Your task to perform on an android device: Clear the cart on walmart. Add "dell alienware" to the cart on walmart Image 0: 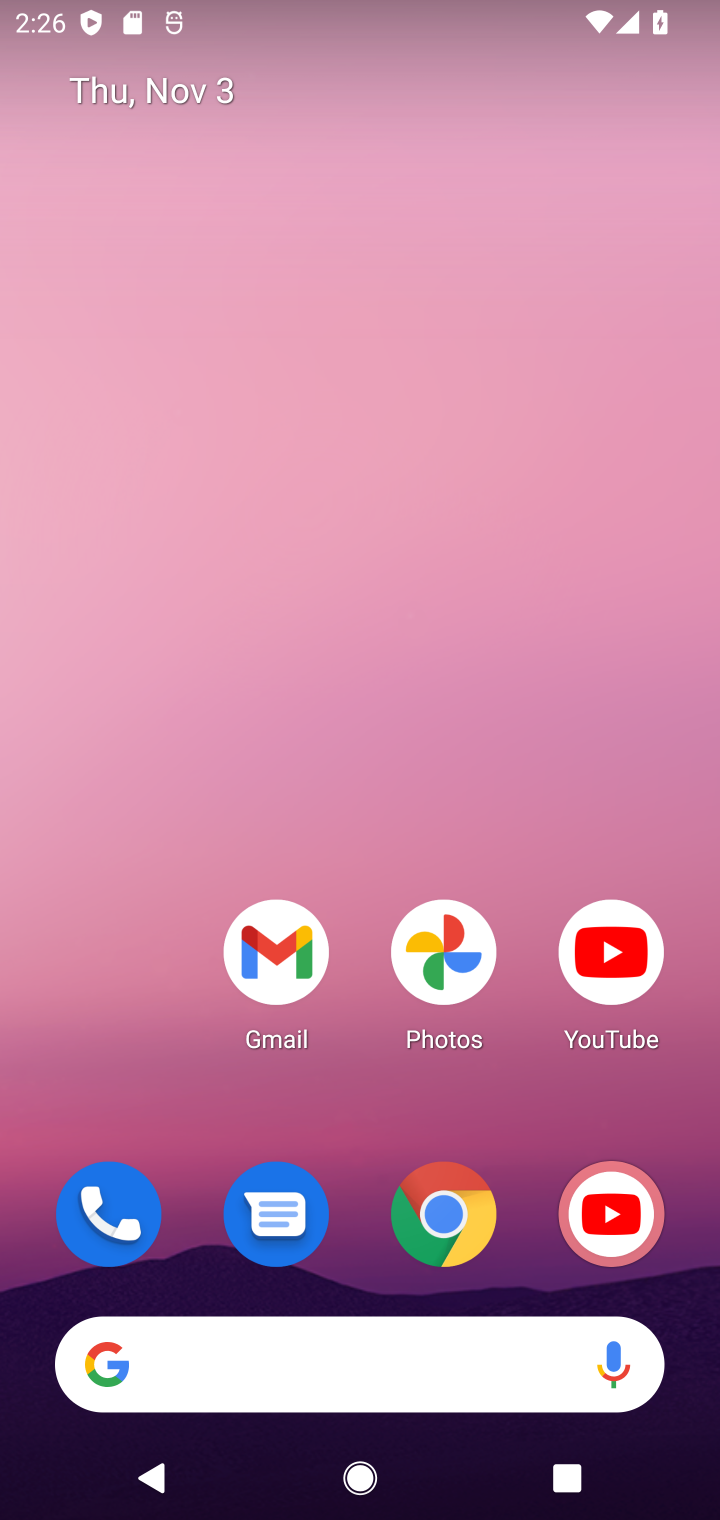
Step 0: click (411, 1339)
Your task to perform on an android device: Clear the cart on walmart. Add "dell alienware" to the cart on walmart Image 1: 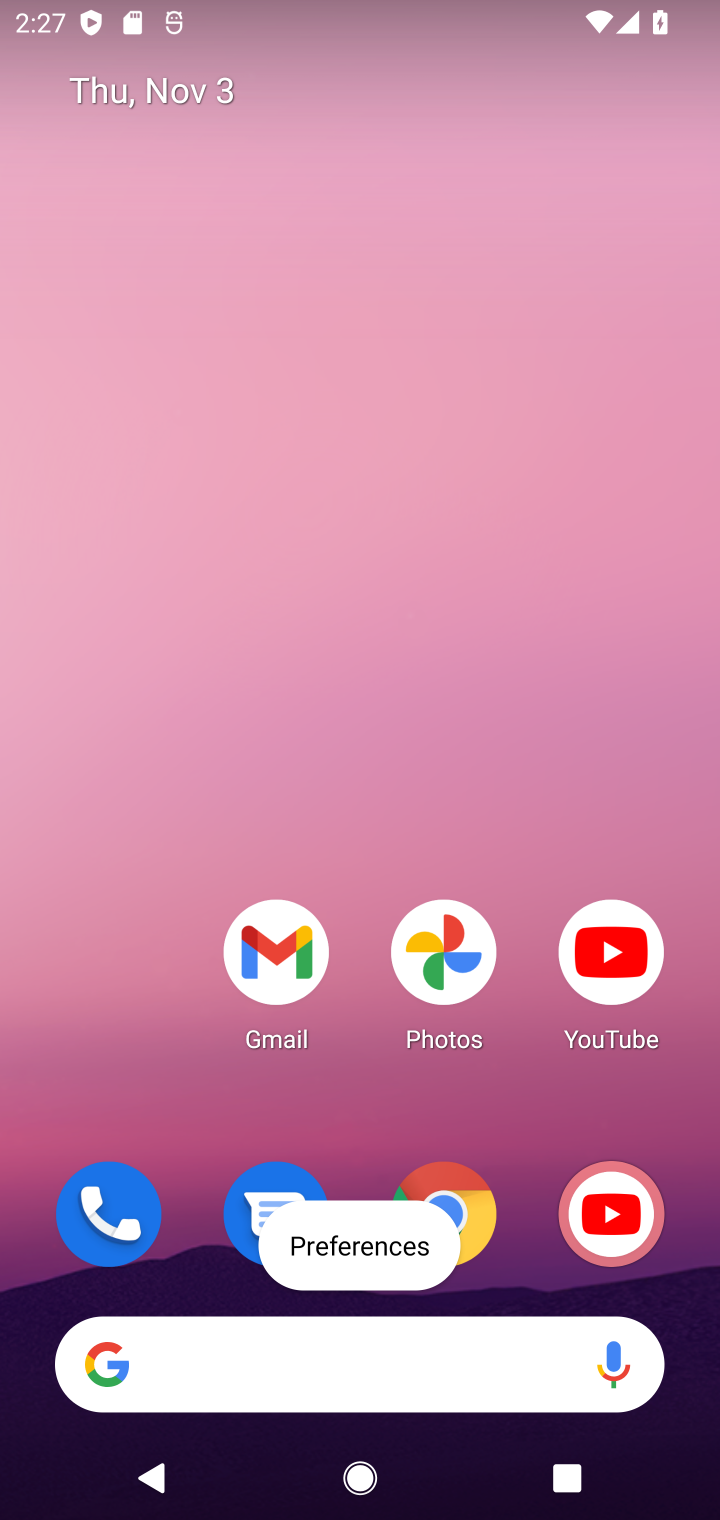
Step 1: click (411, 1339)
Your task to perform on an android device: Clear the cart on walmart. Add "dell alienware" to the cart on walmart Image 2: 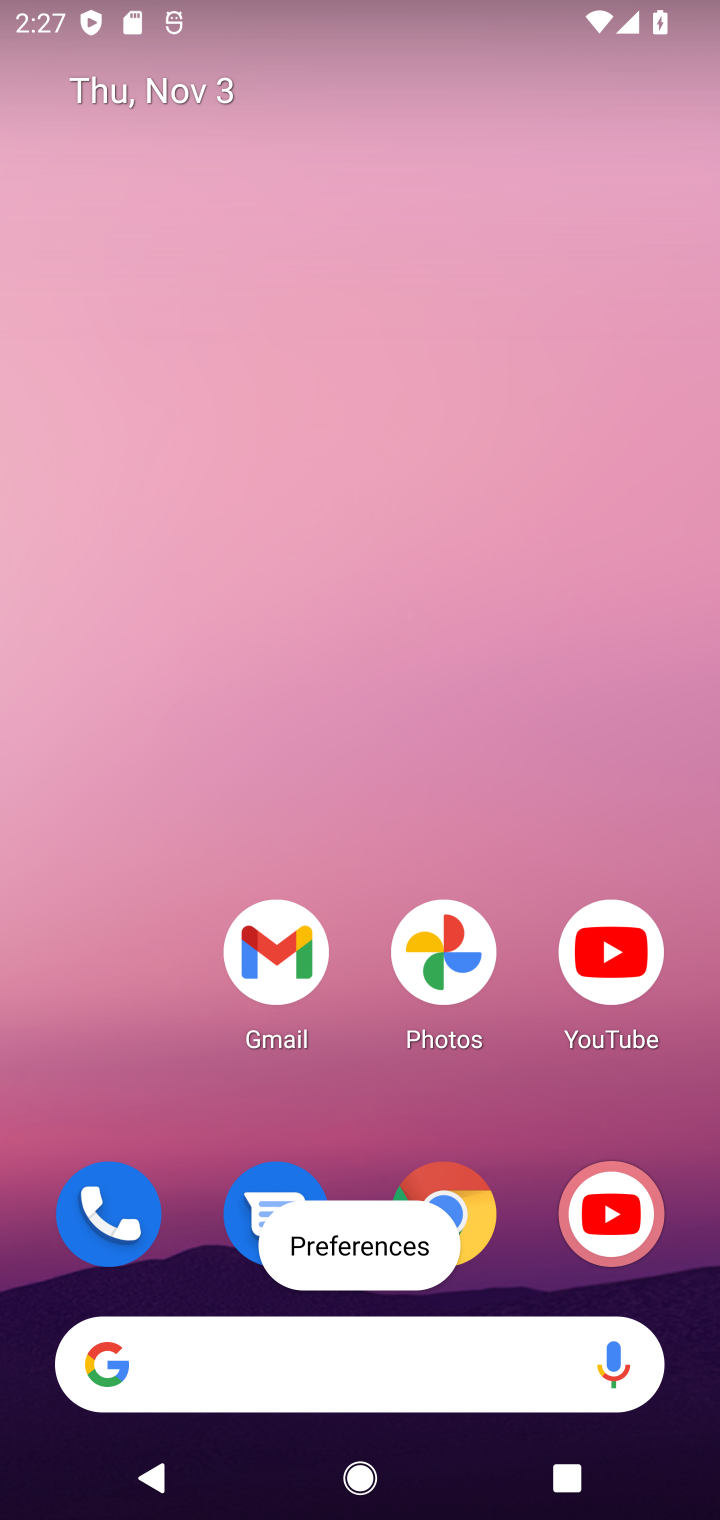
Step 2: click (355, 1339)
Your task to perform on an android device: Clear the cart on walmart. Add "dell alienware" to the cart on walmart Image 3: 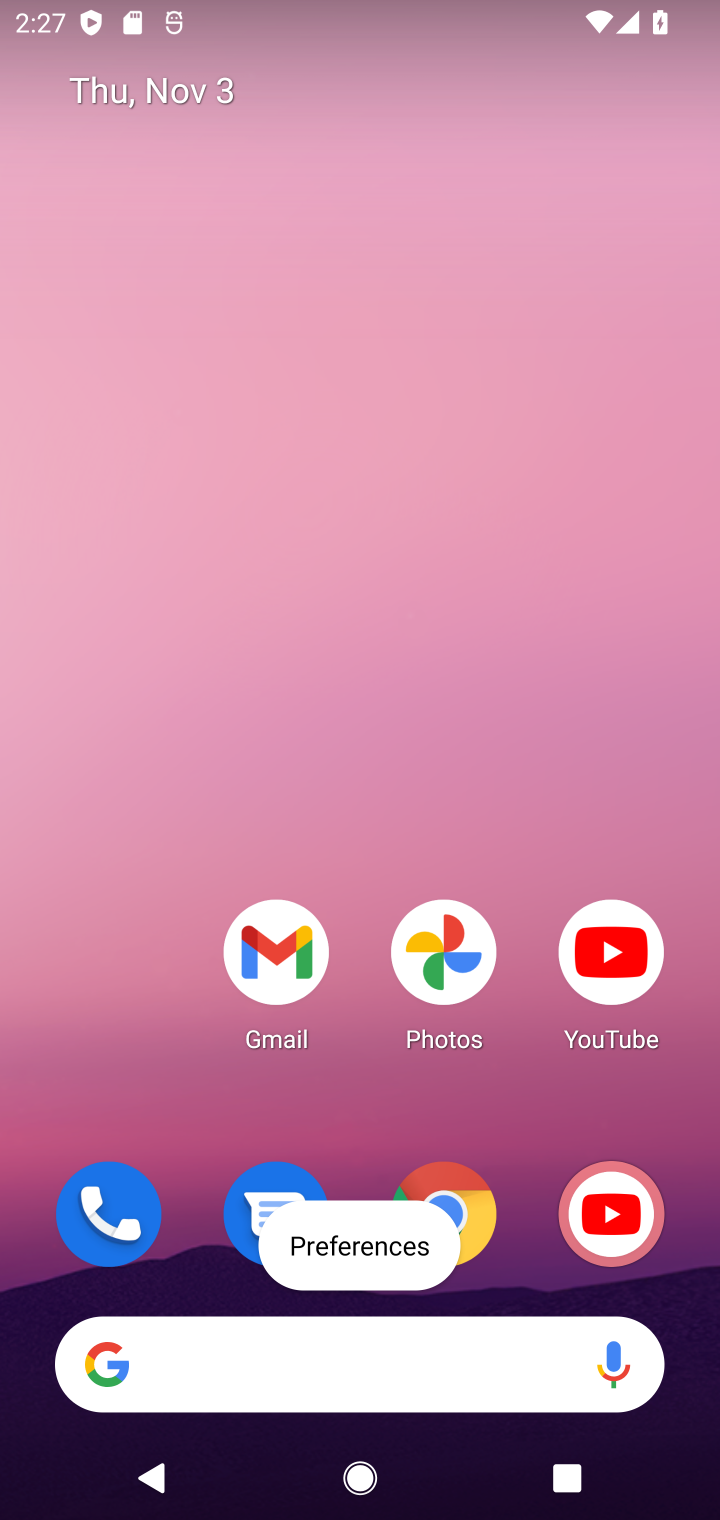
Step 3: click (522, 1377)
Your task to perform on an android device: Clear the cart on walmart. Add "dell alienware" to the cart on walmart Image 4: 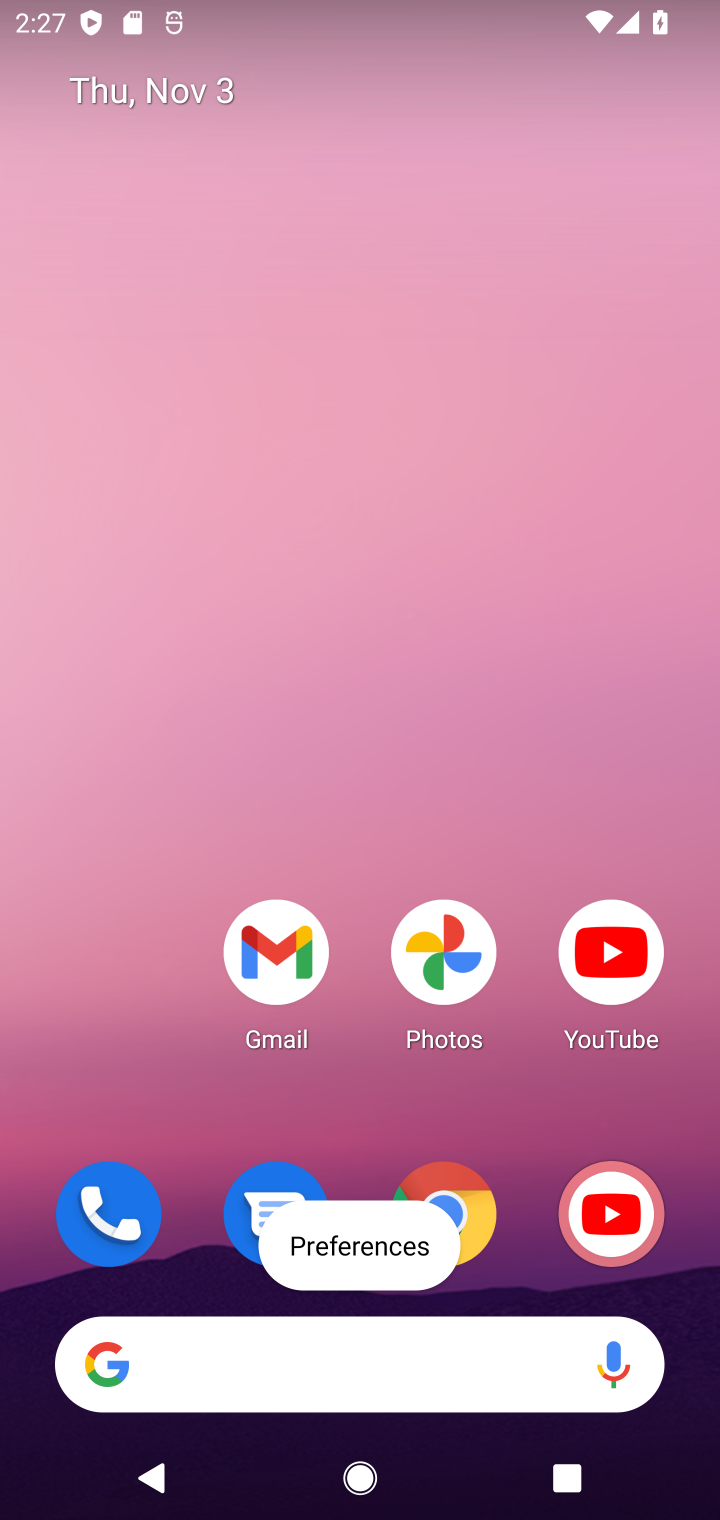
Step 4: click (497, 1358)
Your task to perform on an android device: Clear the cart on walmart. Add "dell alienware" to the cart on walmart Image 5: 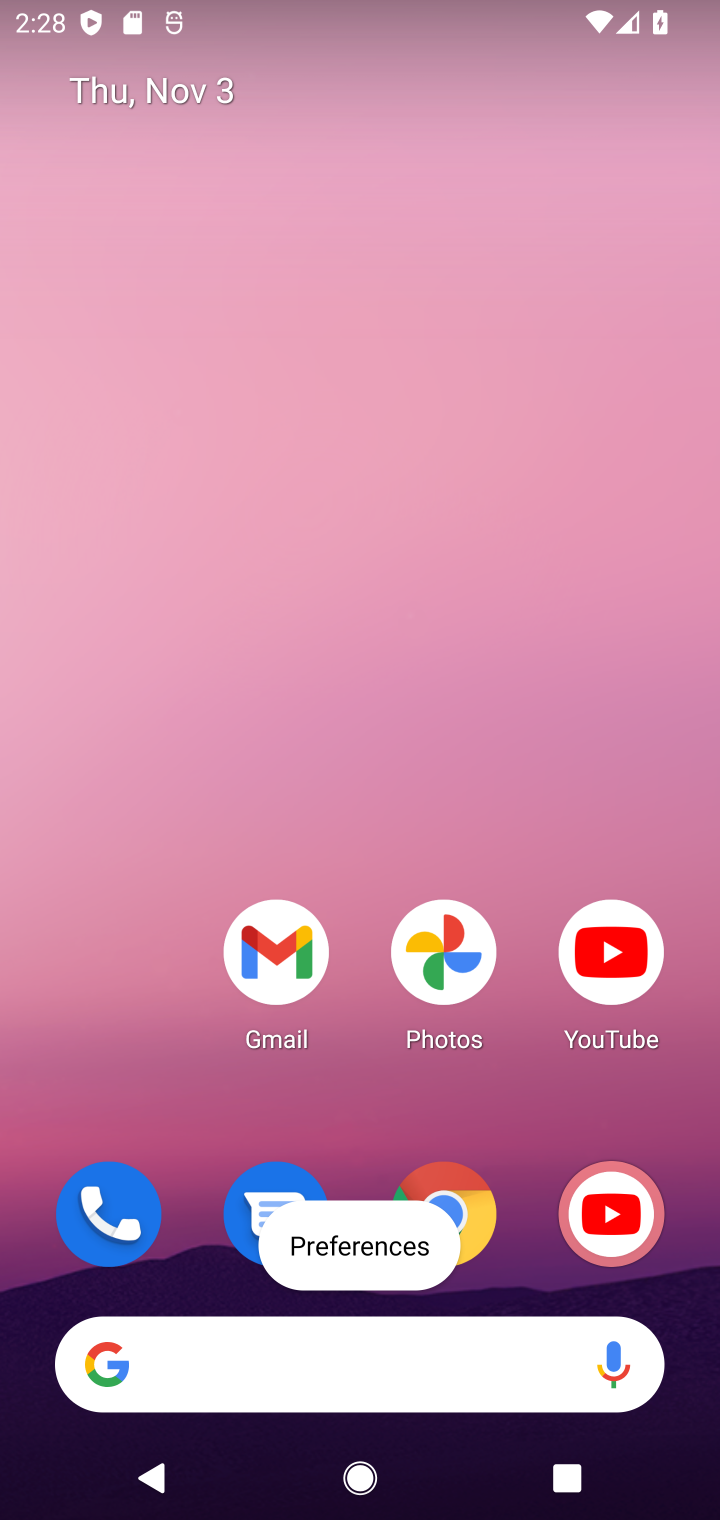
Step 5: click (481, 1346)
Your task to perform on an android device: Clear the cart on walmart. Add "dell alienware" to the cart on walmart Image 6: 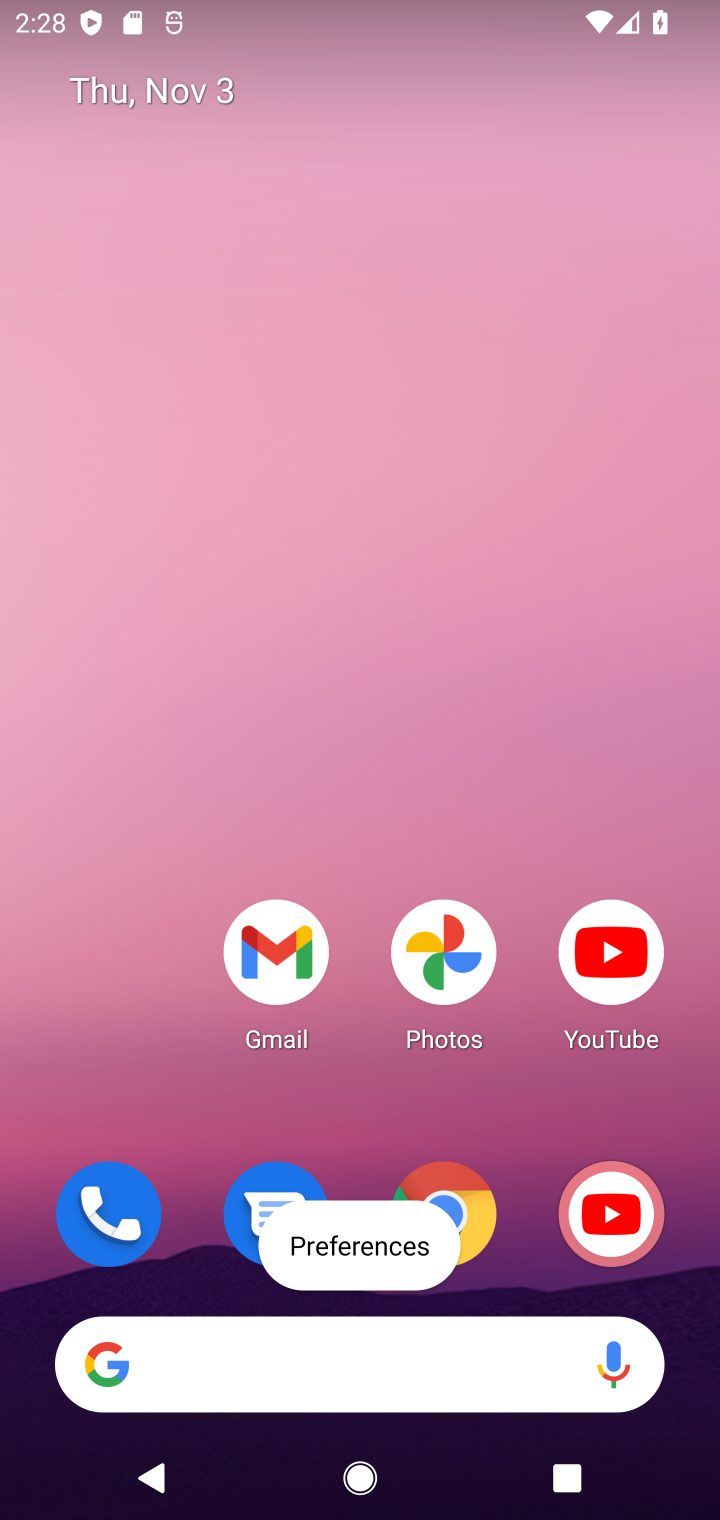
Step 6: click (478, 1348)
Your task to perform on an android device: Clear the cart on walmart. Add "dell alienware" to the cart on walmart Image 7: 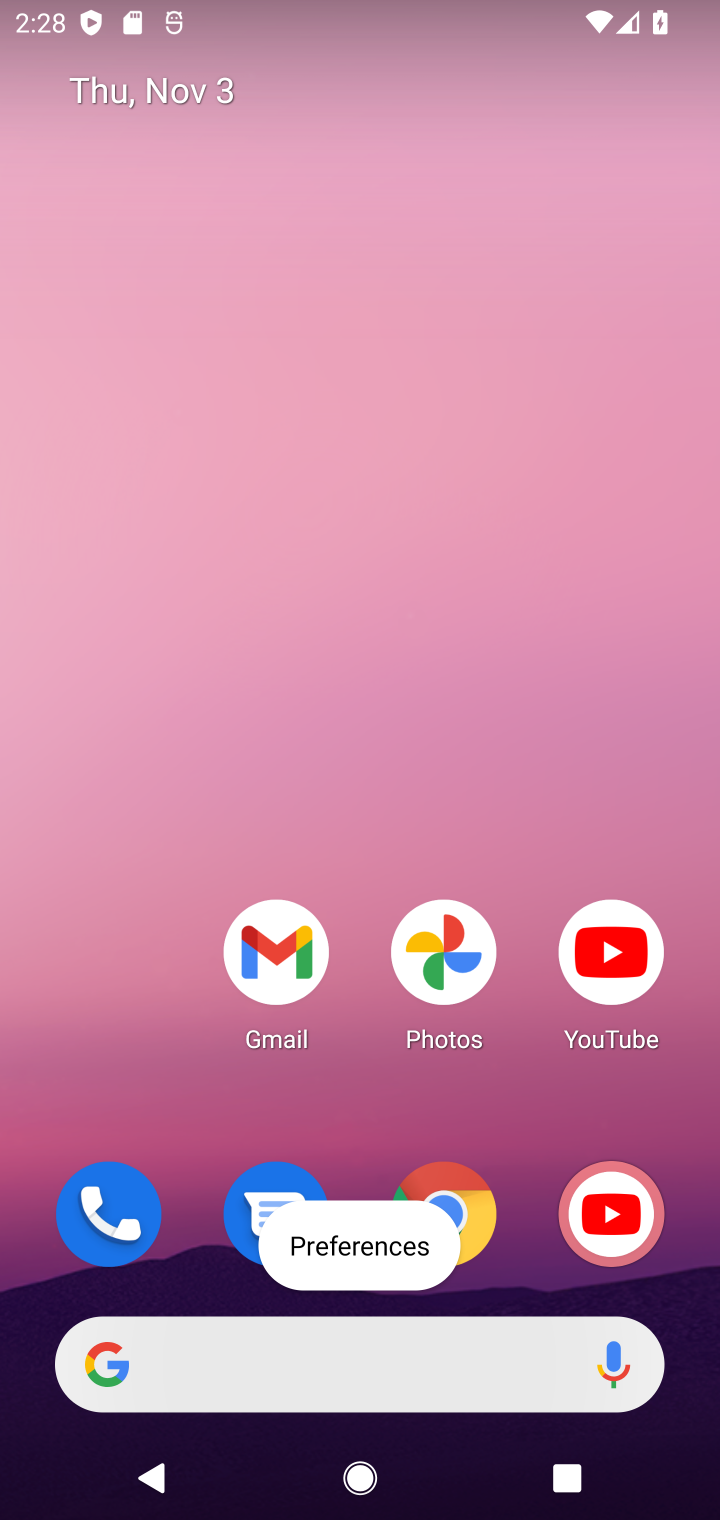
Step 7: click (446, 1363)
Your task to perform on an android device: Clear the cart on walmart. Add "dell alienware" to the cart on walmart Image 8: 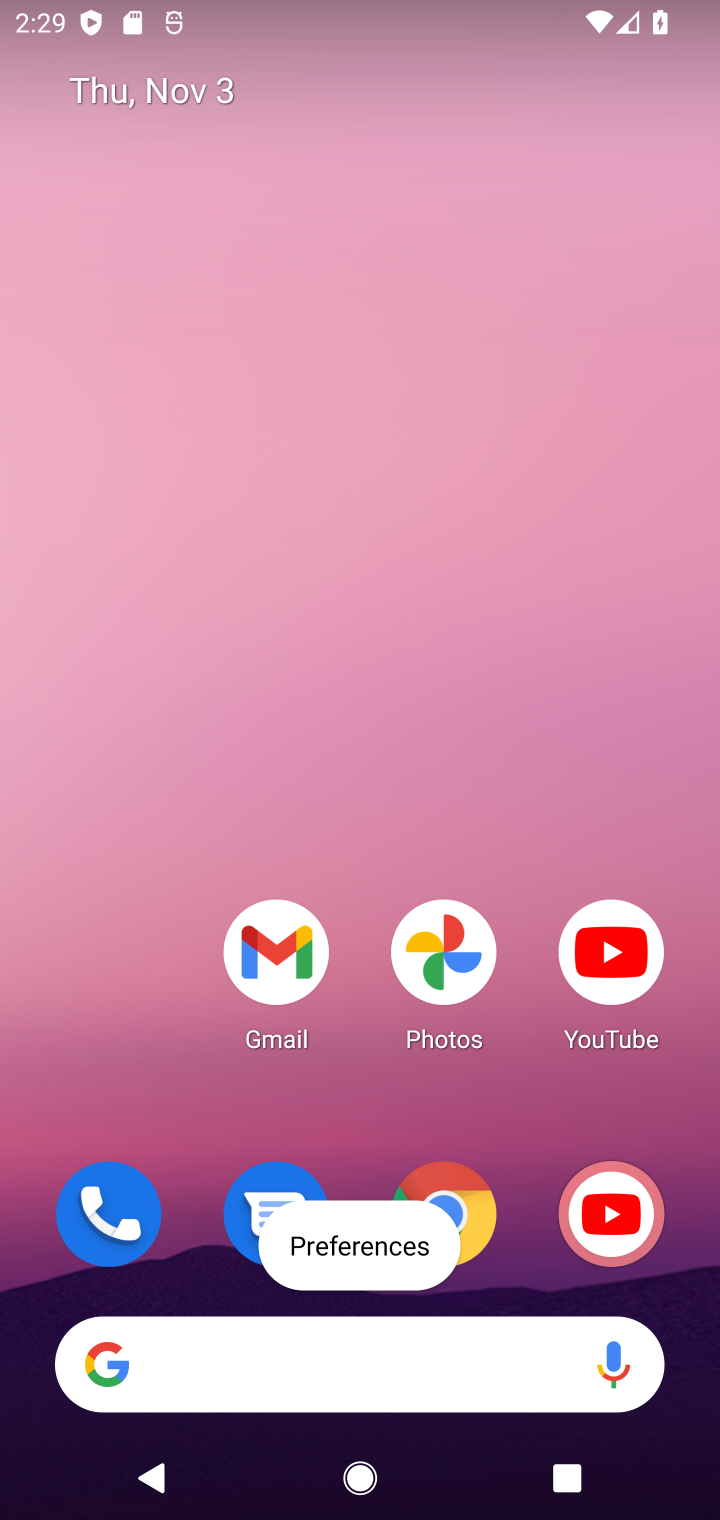
Step 8: click (446, 1363)
Your task to perform on an android device: Clear the cart on walmart. Add "dell alienware" to the cart on walmart Image 9: 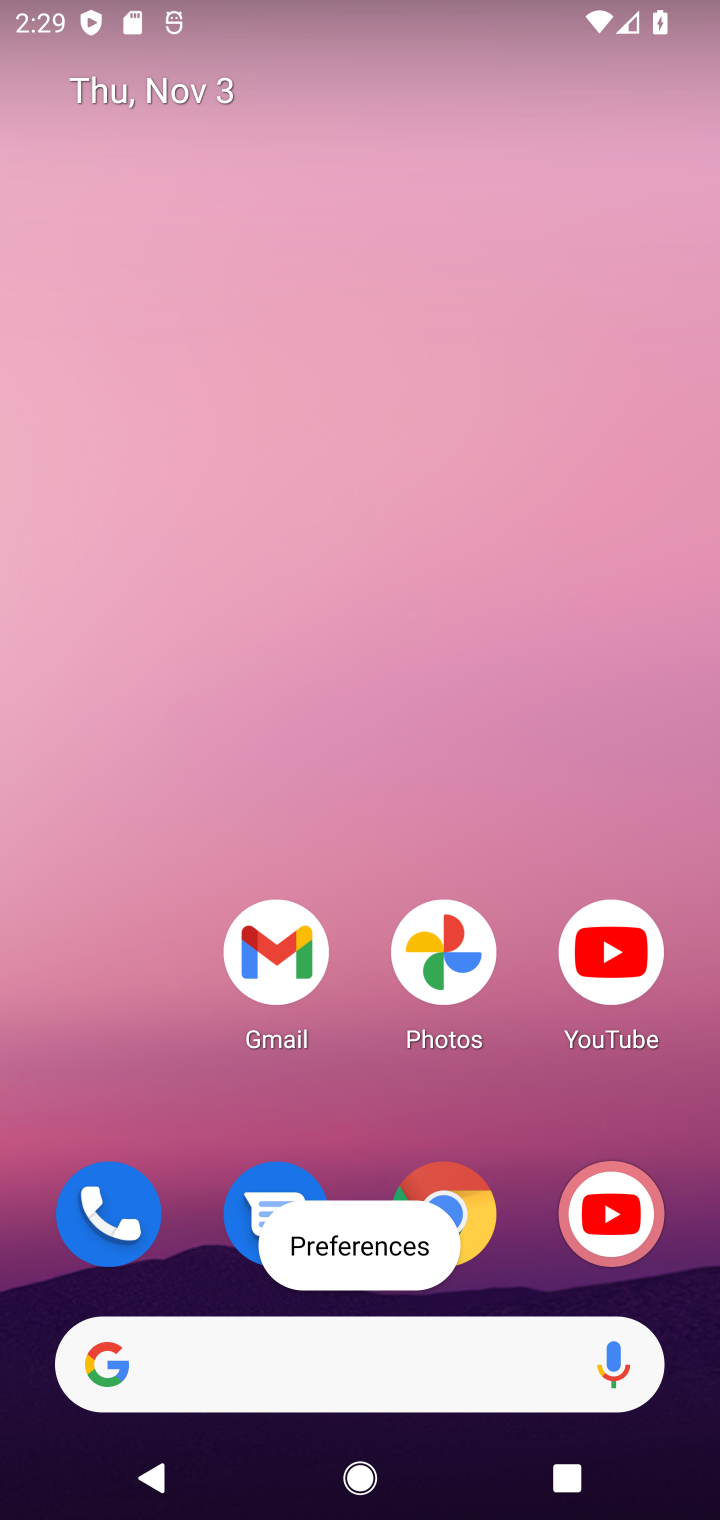
Step 9: click (453, 1365)
Your task to perform on an android device: Clear the cart on walmart. Add "dell alienware" to the cart on walmart Image 10: 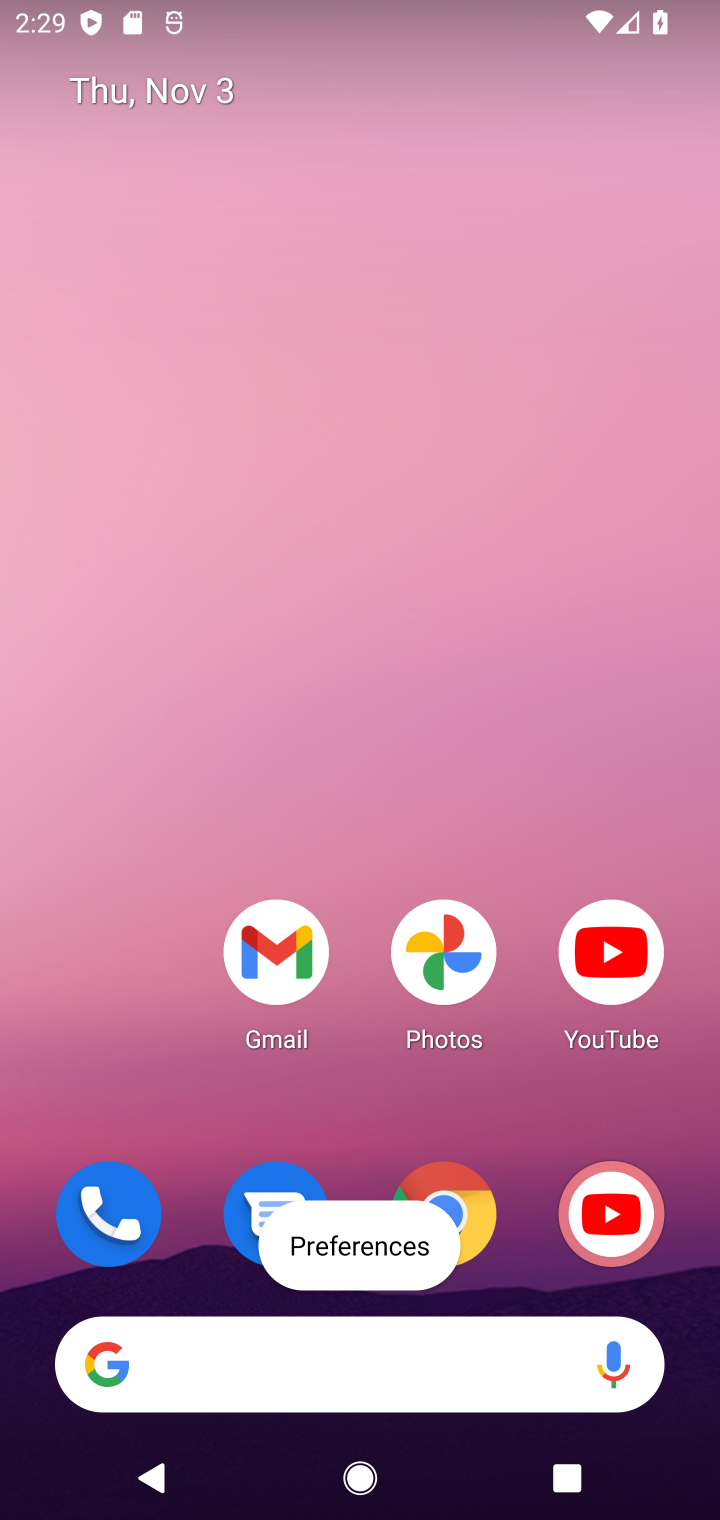
Step 10: click (463, 1235)
Your task to perform on an android device: Clear the cart on walmart. Add "dell alienware" to the cart on walmart Image 11: 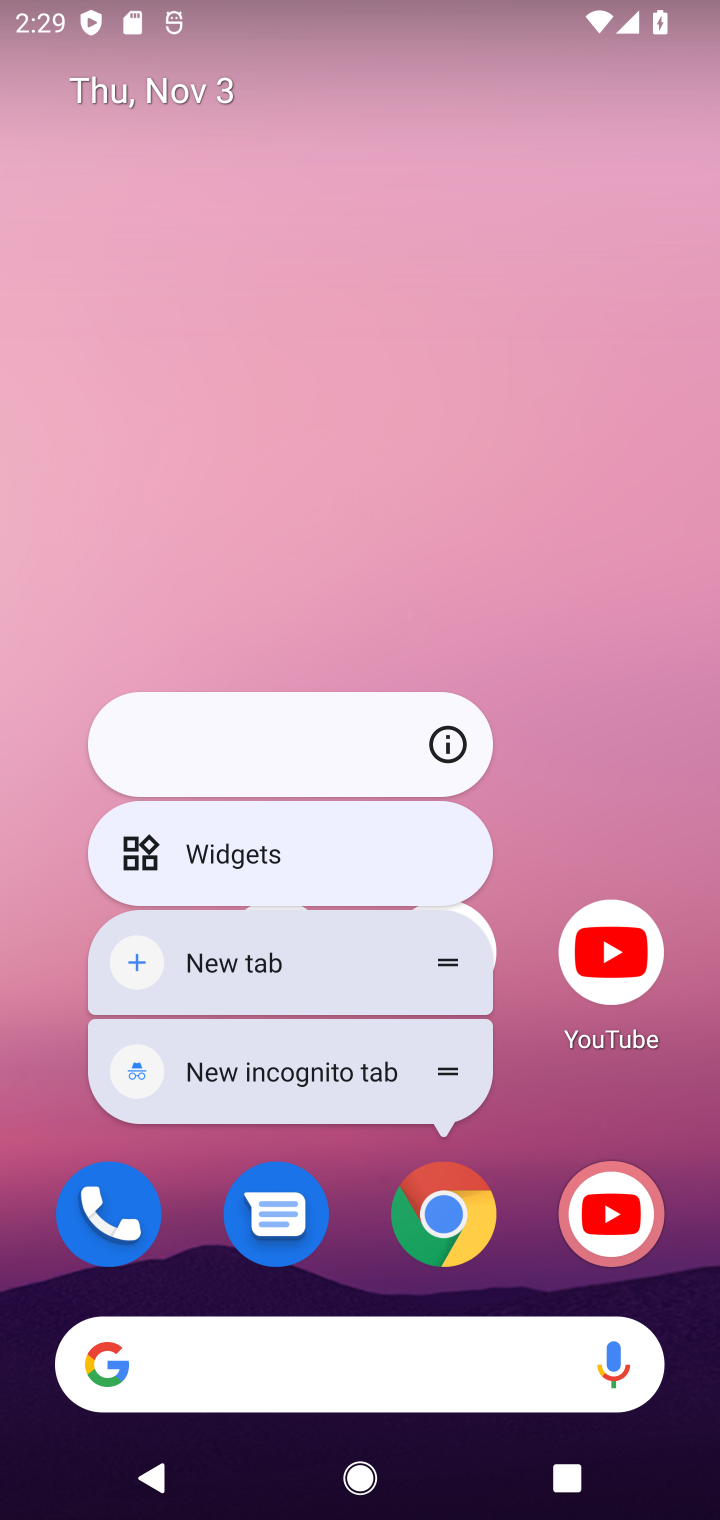
Step 11: click (465, 1233)
Your task to perform on an android device: Clear the cart on walmart. Add "dell alienware" to the cart on walmart Image 12: 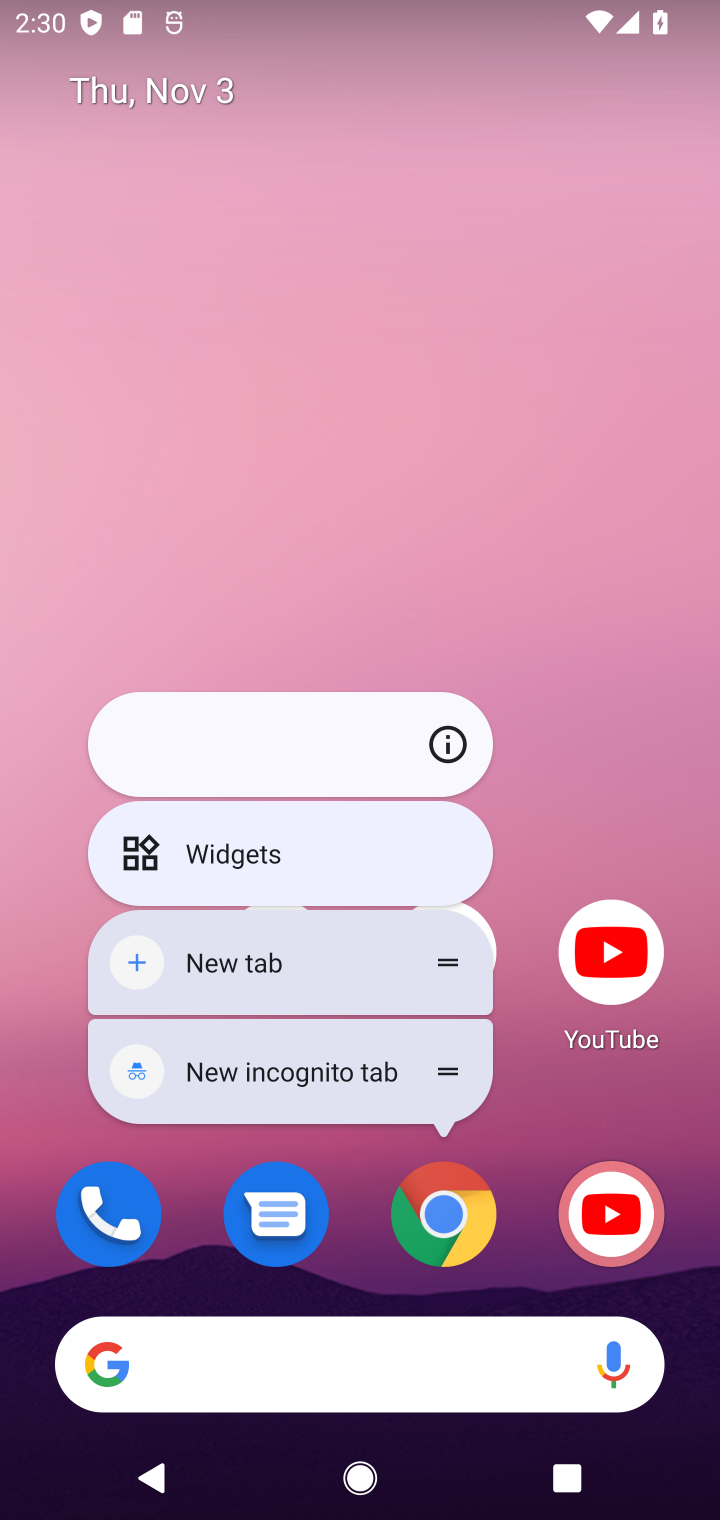
Step 12: click (468, 1238)
Your task to perform on an android device: Clear the cart on walmart. Add "dell alienware" to the cart on walmart Image 13: 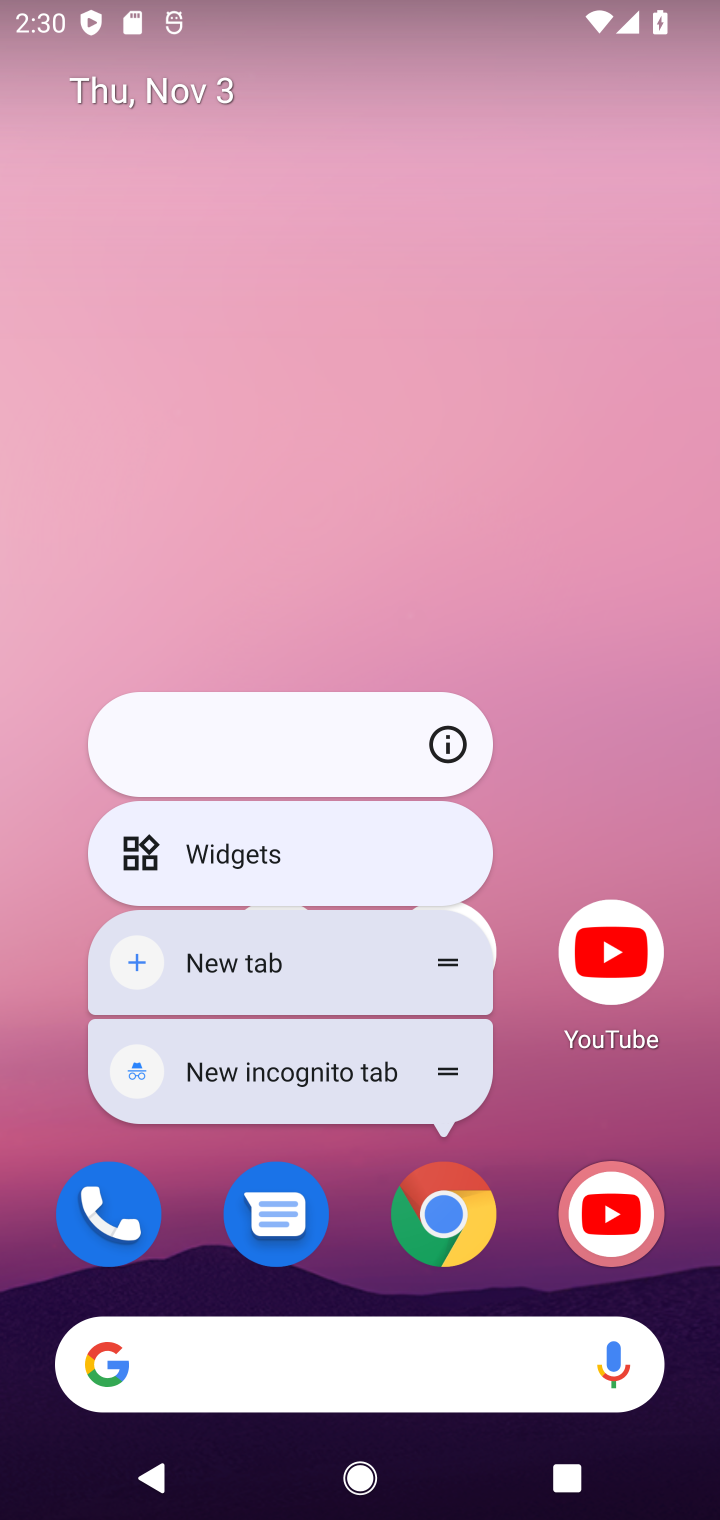
Step 13: task complete